Your task to perform on an android device: open app "Spotify: Music and Podcasts" (install if not already installed), go to login, and select forgot password Image 0: 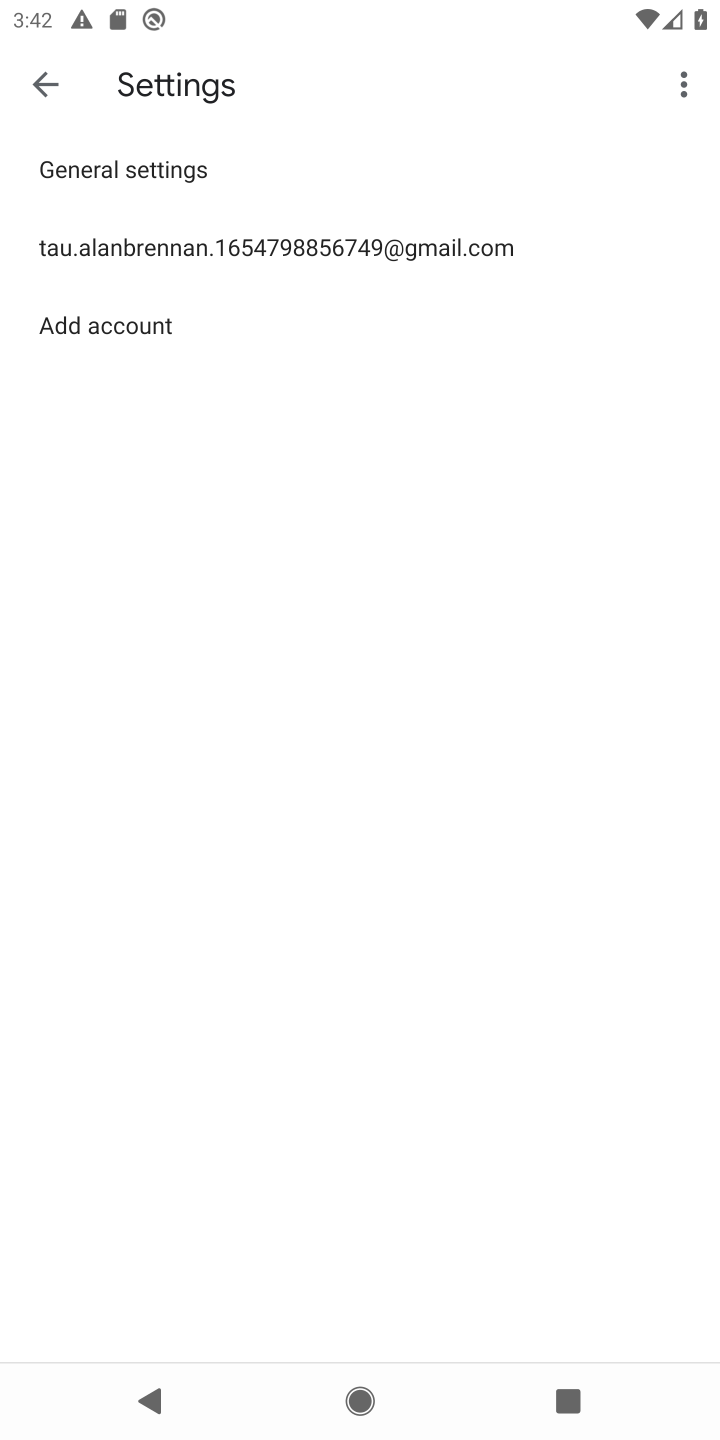
Step 0: press home button
Your task to perform on an android device: open app "Spotify: Music and Podcasts" (install if not already installed), go to login, and select forgot password Image 1: 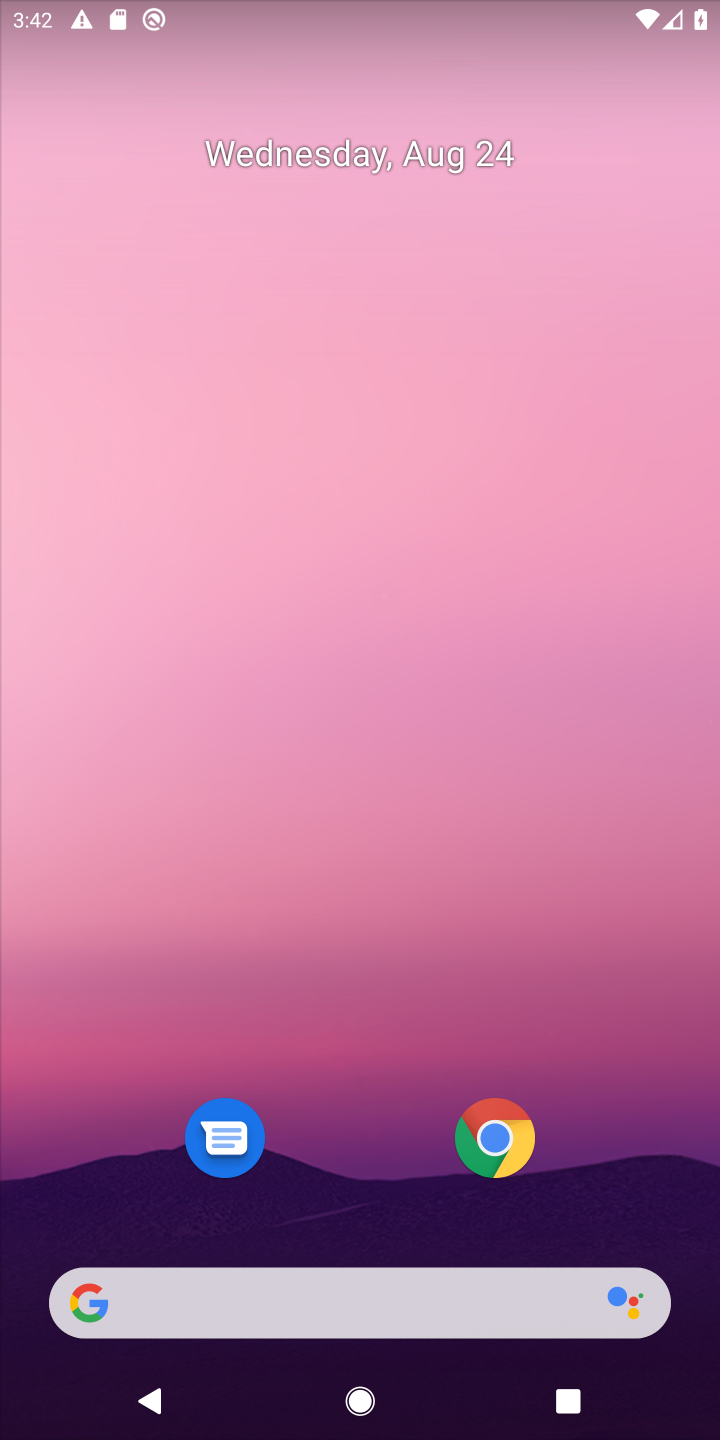
Step 1: drag from (353, 1245) to (428, 256)
Your task to perform on an android device: open app "Spotify: Music and Podcasts" (install if not already installed), go to login, and select forgot password Image 2: 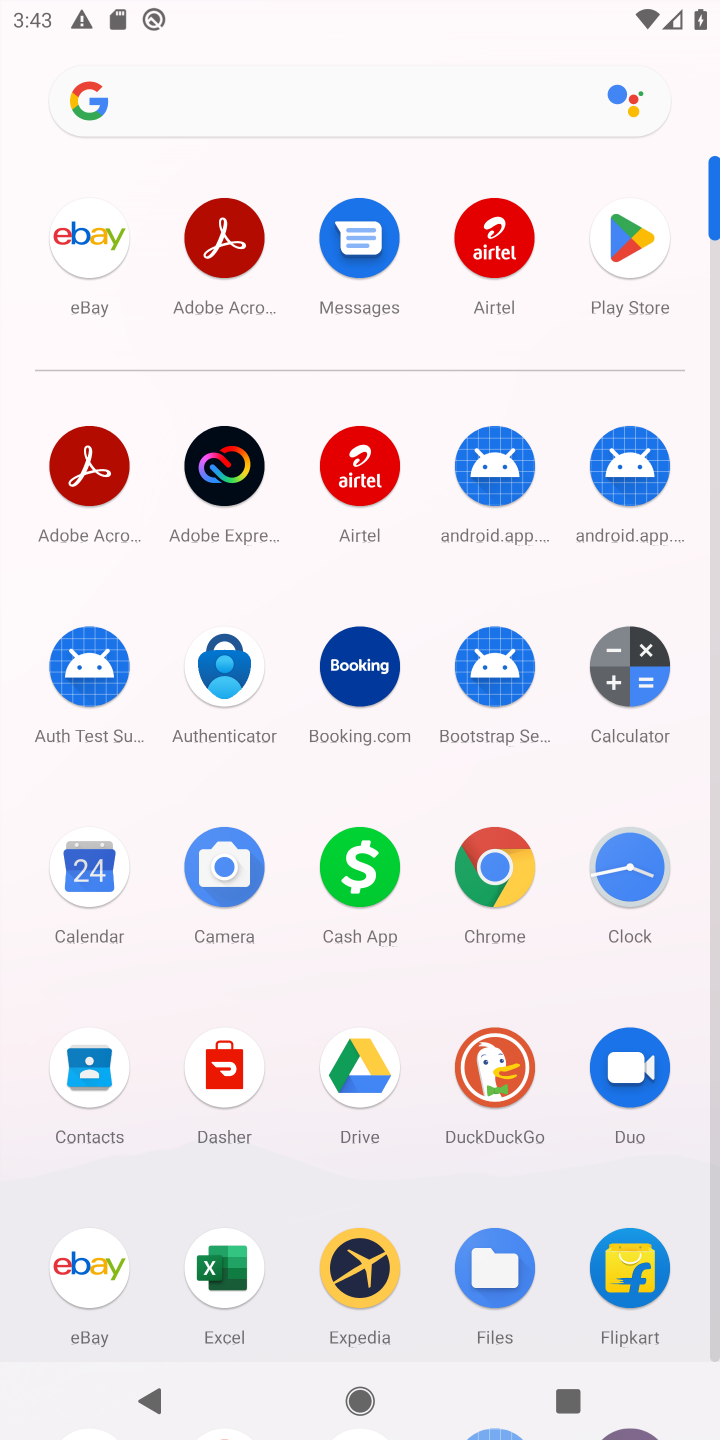
Step 2: click (628, 231)
Your task to perform on an android device: open app "Spotify: Music and Podcasts" (install if not already installed), go to login, and select forgot password Image 3: 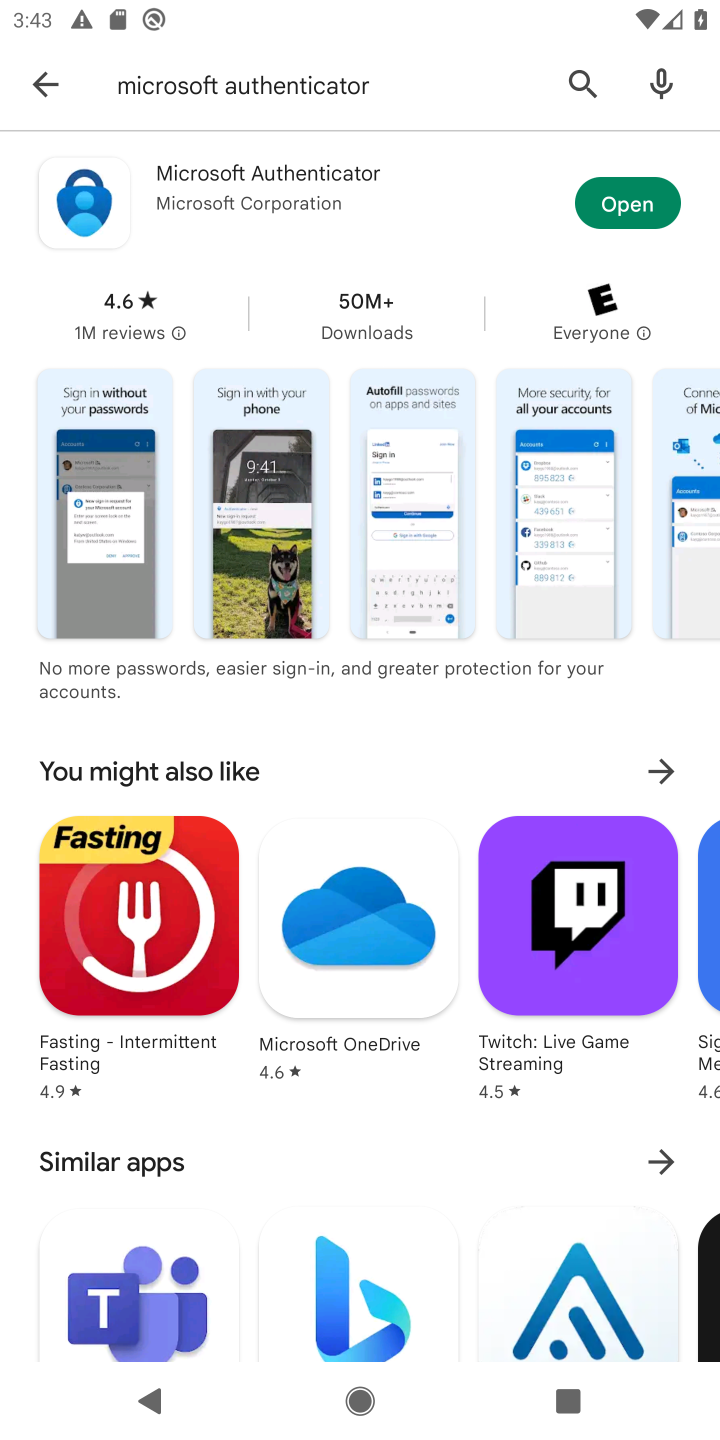
Step 3: click (582, 78)
Your task to perform on an android device: open app "Spotify: Music and Podcasts" (install if not already installed), go to login, and select forgot password Image 4: 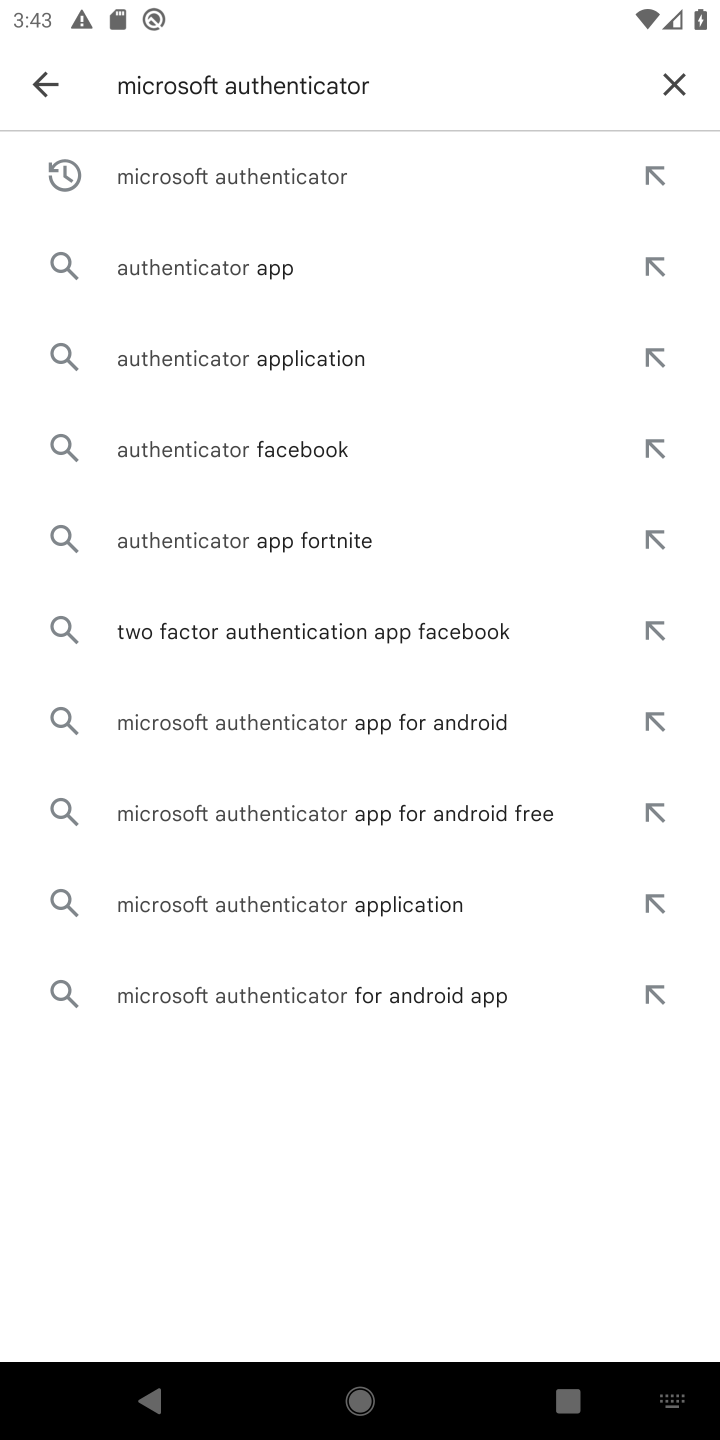
Step 4: click (673, 74)
Your task to perform on an android device: open app "Spotify: Music and Podcasts" (install if not already installed), go to login, and select forgot password Image 5: 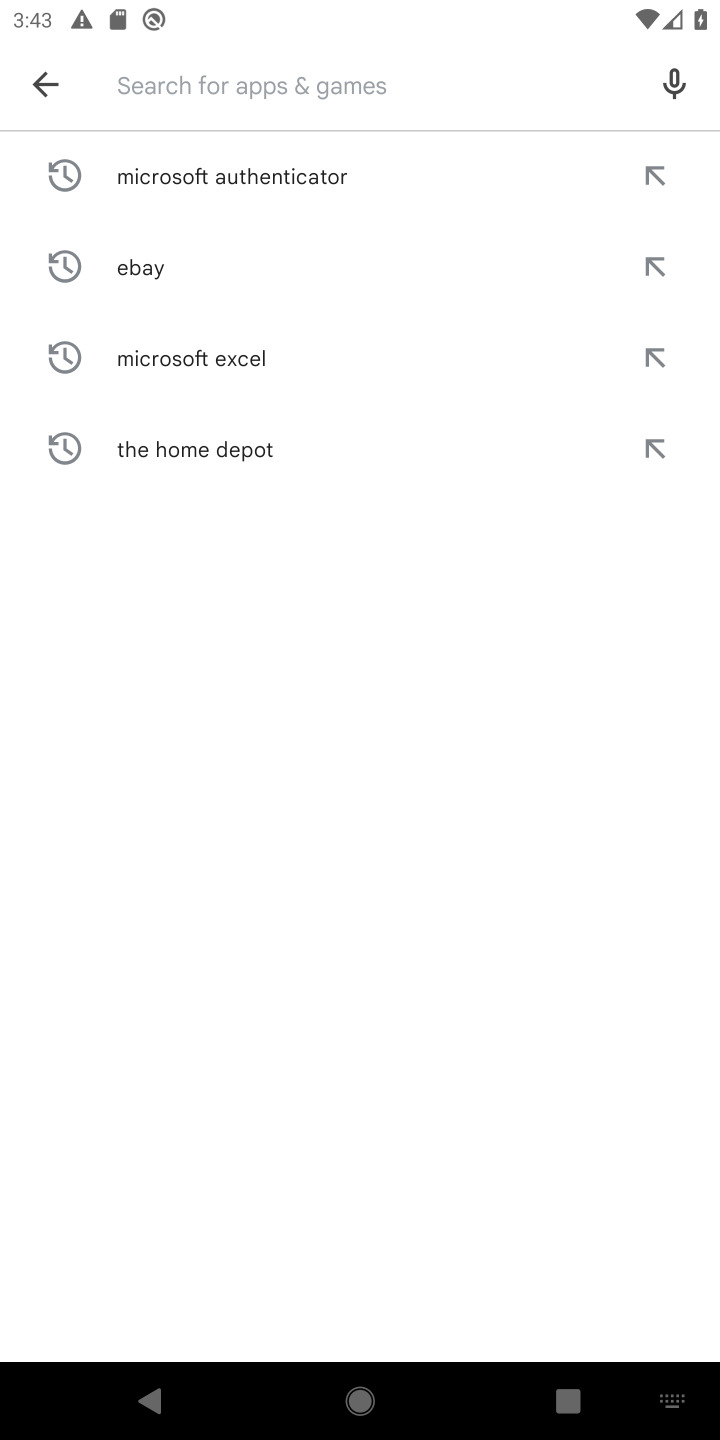
Step 5: type "Spotify"
Your task to perform on an android device: open app "Spotify: Music and Podcasts" (install if not already installed), go to login, and select forgot password Image 6: 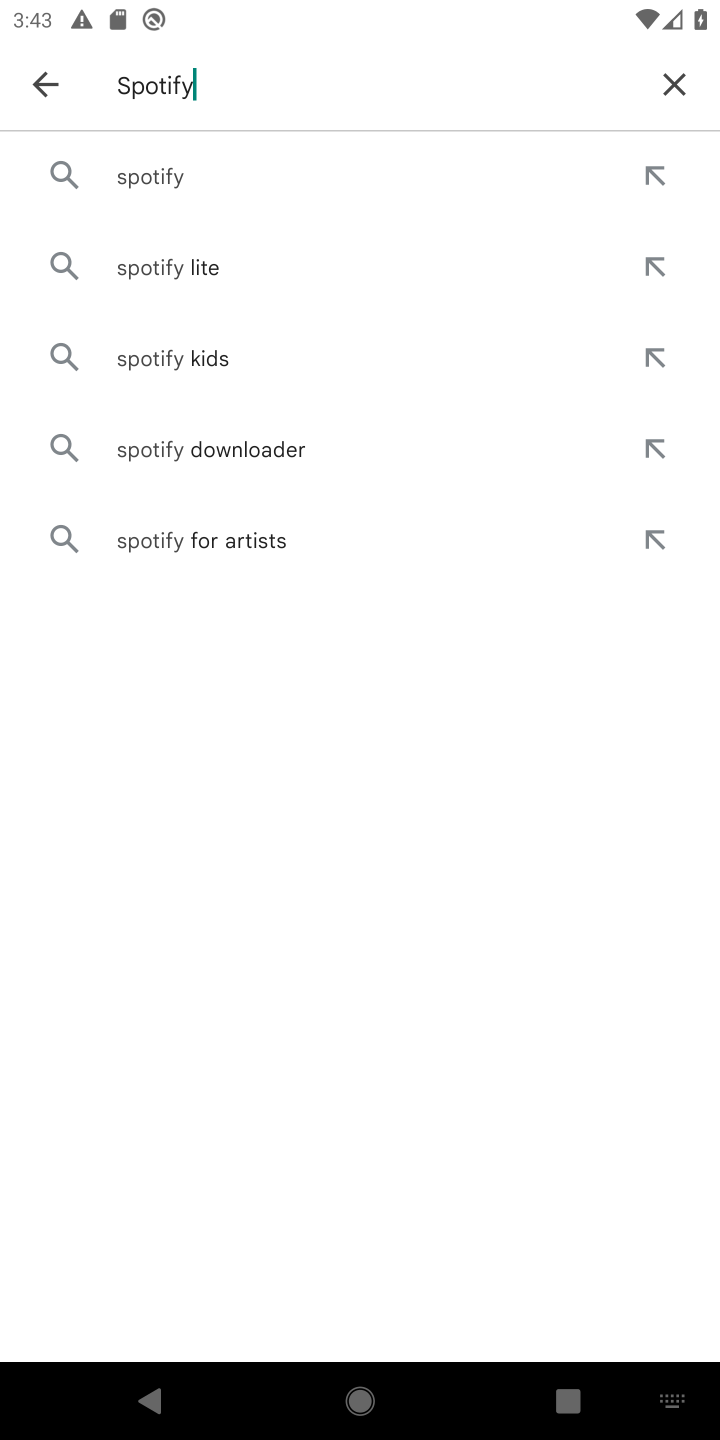
Step 6: click (139, 165)
Your task to perform on an android device: open app "Spotify: Music and Podcasts" (install if not already installed), go to login, and select forgot password Image 7: 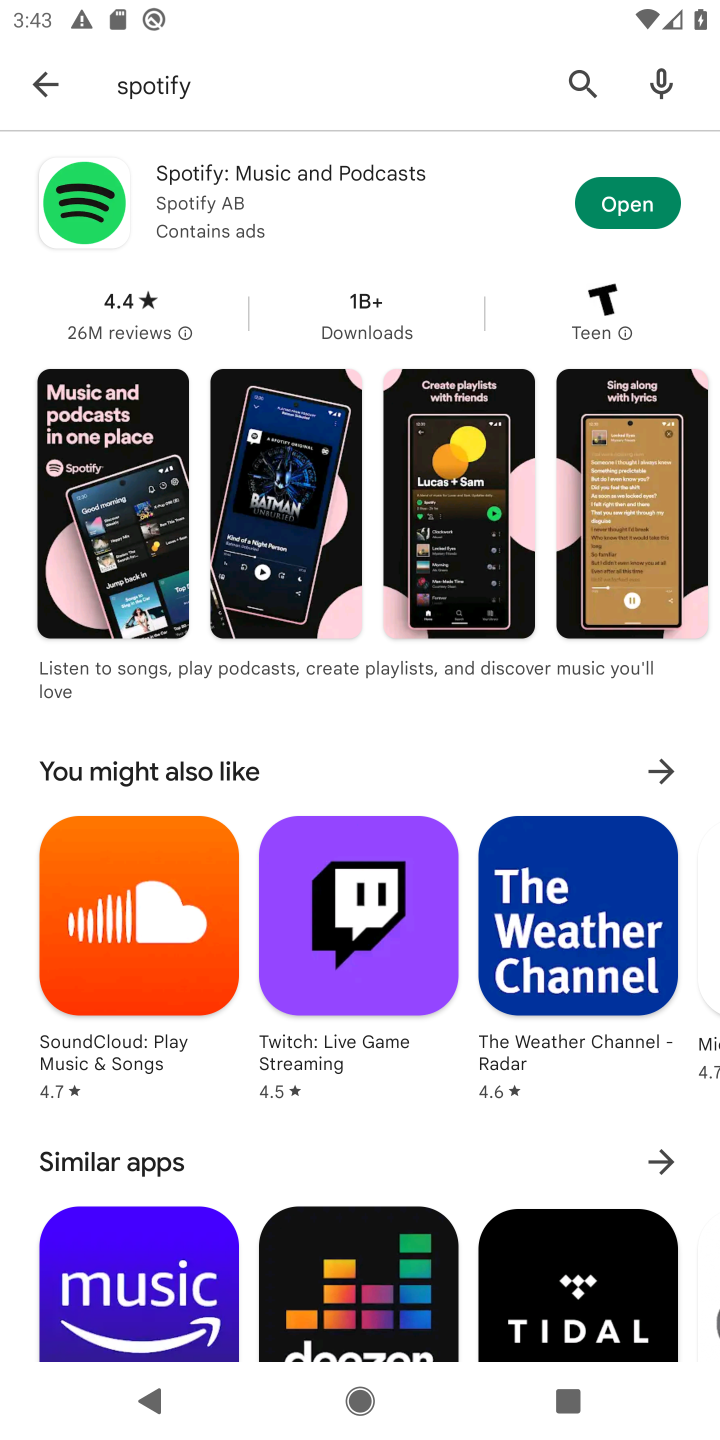
Step 7: click (624, 198)
Your task to perform on an android device: open app "Spotify: Music and Podcasts" (install if not already installed), go to login, and select forgot password Image 8: 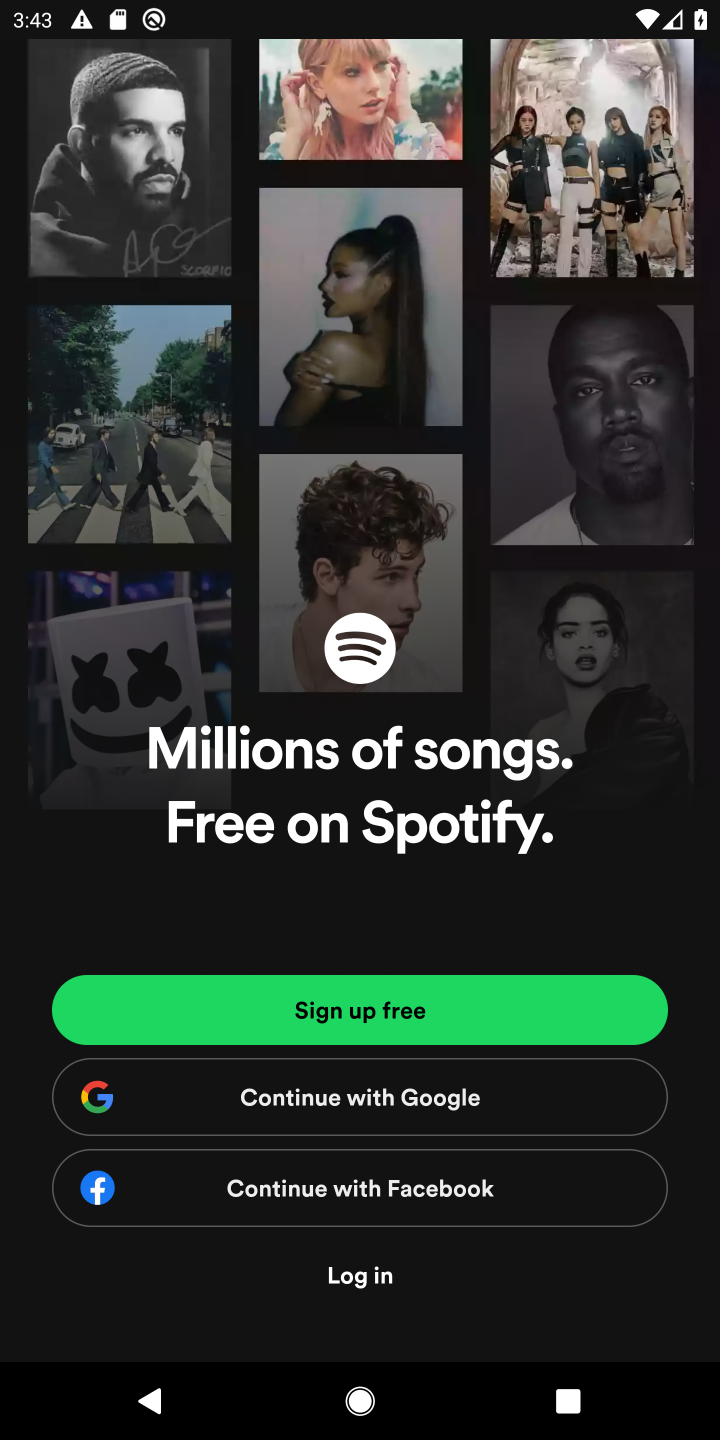
Step 8: click (371, 1274)
Your task to perform on an android device: open app "Spotify: Music and Podcasts" (install if not already installed), go to login, and select forgot password Image 9: 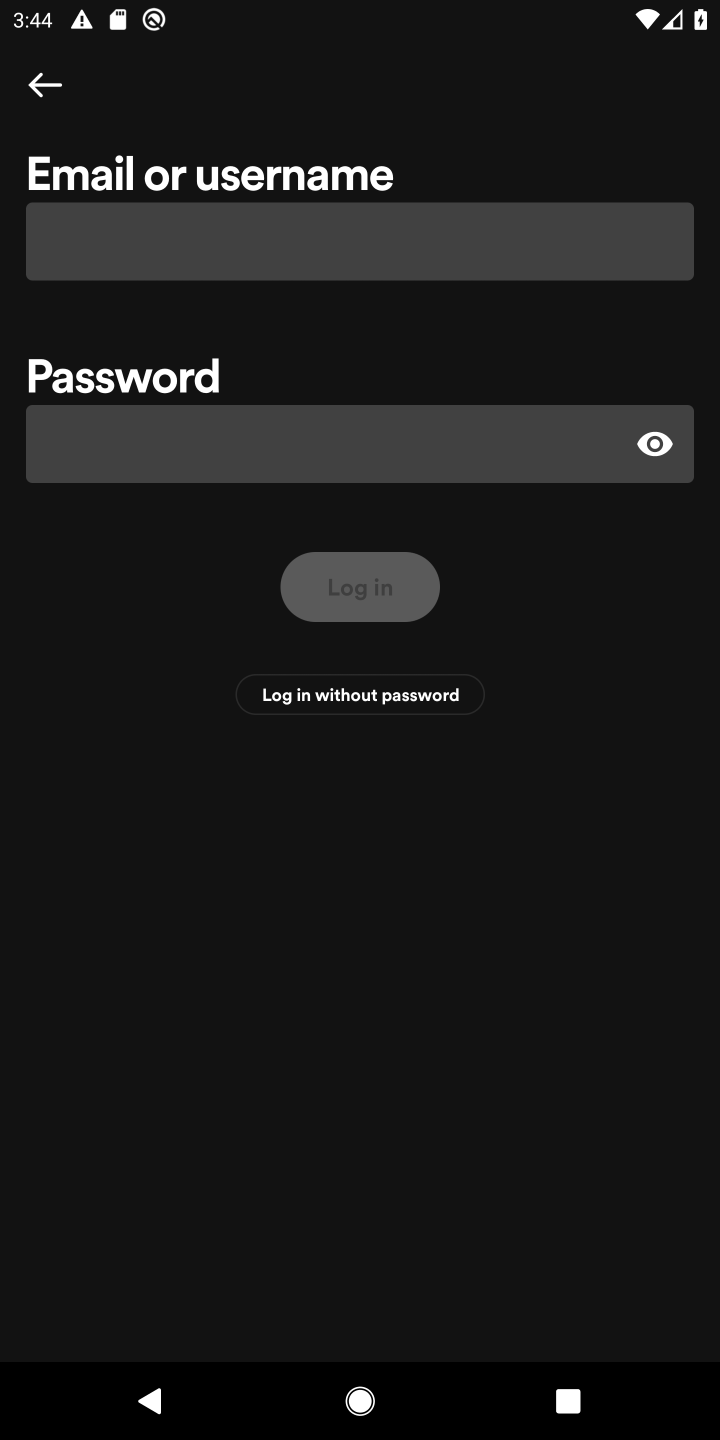
Step 9: click (388, 693)
Your task to perform on an android device: open app "Spotify: Music and Podcasts" (install if not already installed), go to login, and select forgot password Image 10: 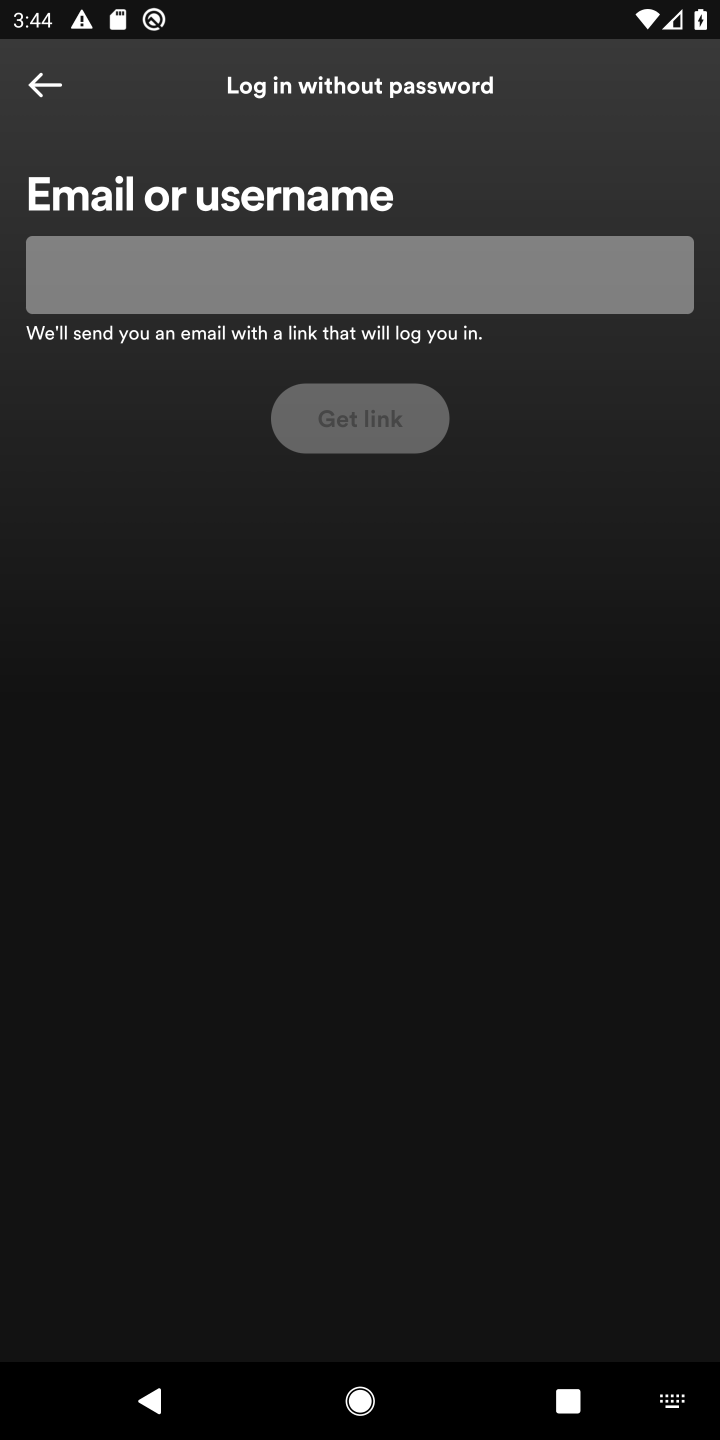
Step 10: task complete